Your task to perform on an android device: toggle translation in the chrome app Image 0: 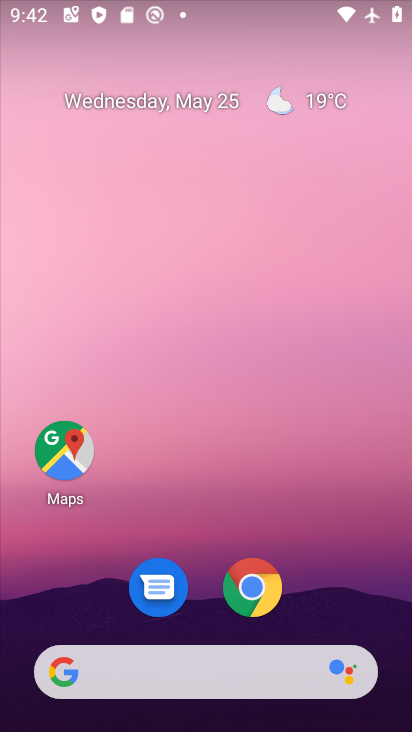
Step 0: click (252, 592)
Your task to perform on an android device: toggle translation in the chrome app Image 1: 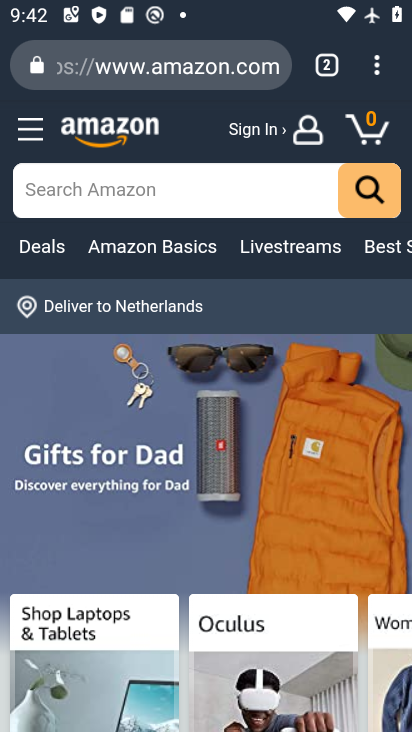
Step 1: click (377, 72)
Your task to perform on an android device: toggle translation in the chrome app Image 2: 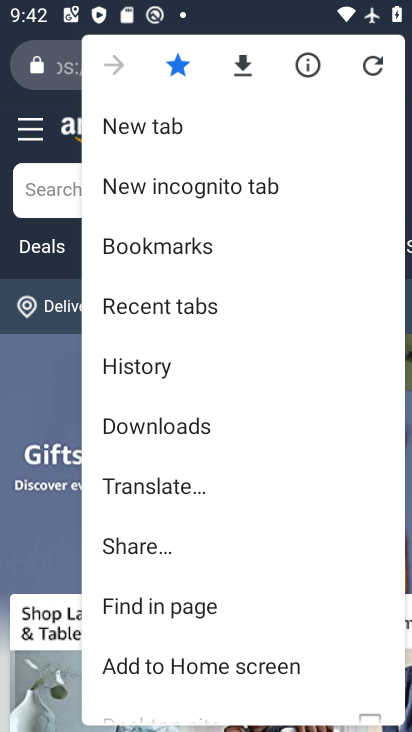
Step 2: drag from (278, 635) to (283, 191)
Your task to perform on an android device: toggle translation in the chrome app Image 3: 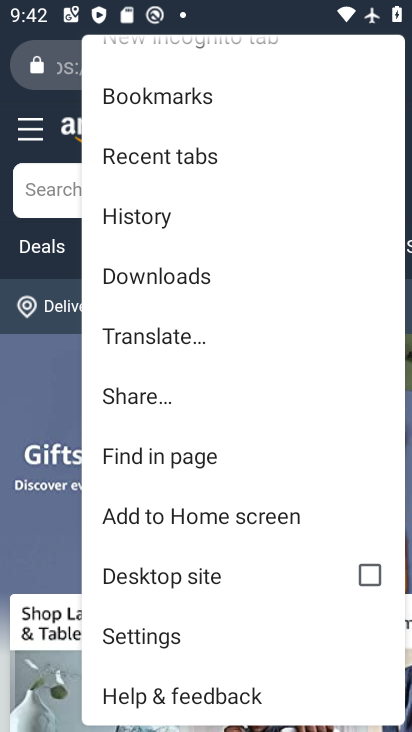
Step 3: click (123, 637)
Your task to perform on an android device: toggle translation in the chrome app Image 4: 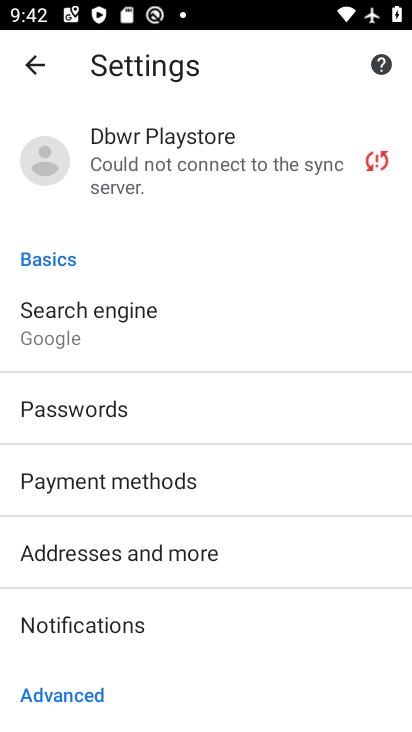
Step 4: drag from (210, 669) to (259, 262)
Your task to perform on an android device: toggle translation in the chrome app Image 5: 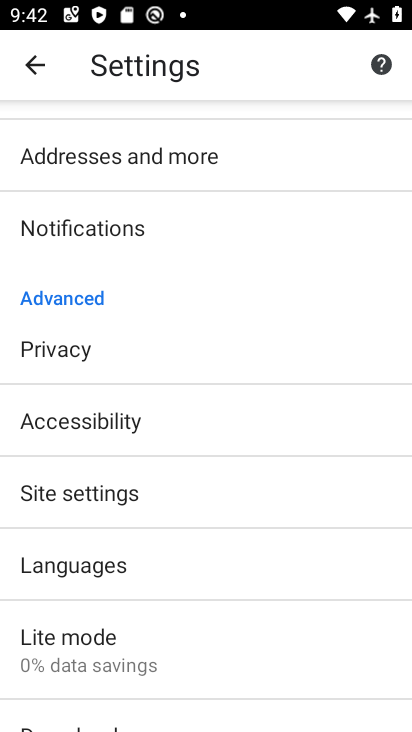
Step 5: click (88, 565)
Your task to perform on an android device: toggle translation in the chrome app Image 6: 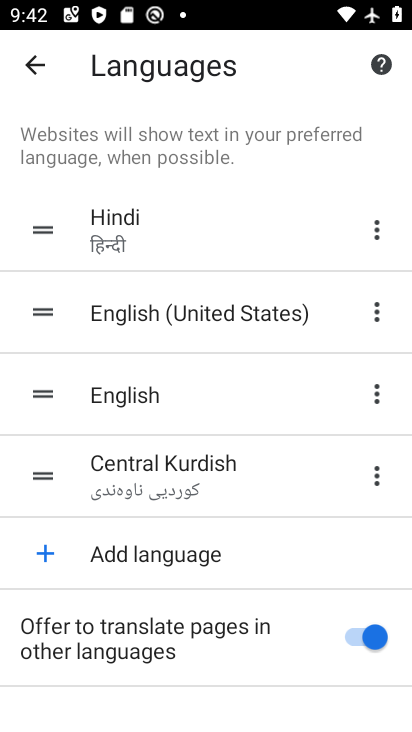
Step 6: click (355, 634)
Your task to perform on an android device: toggle translation in the chrome app Image 7: 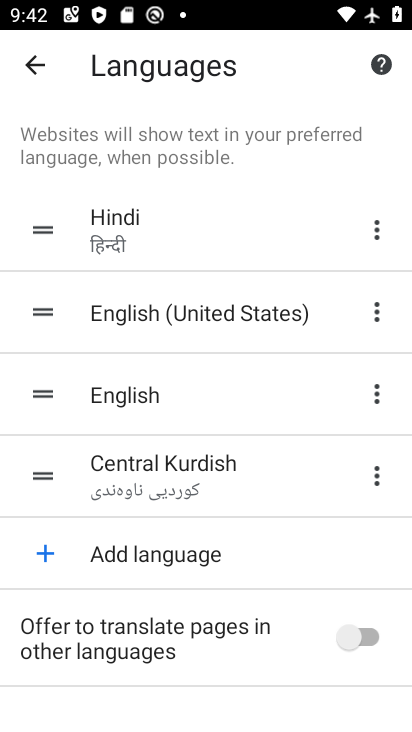
Step 7: task complete